Your task to perform on an android device: Open Android settings Image 0: 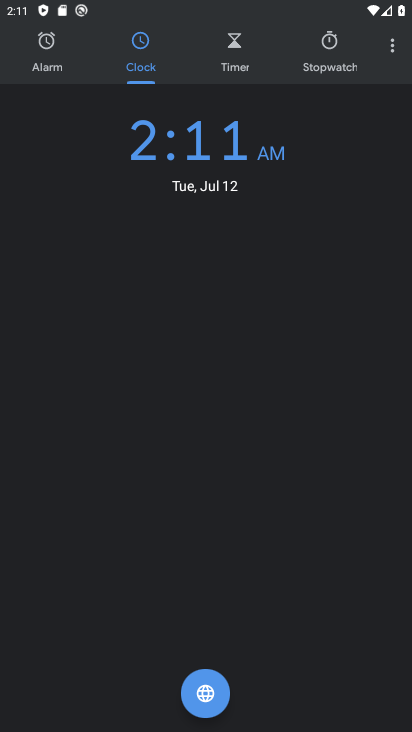
Step 0: press home button
Your task to perform on an android device: Open Android settings Image 1: 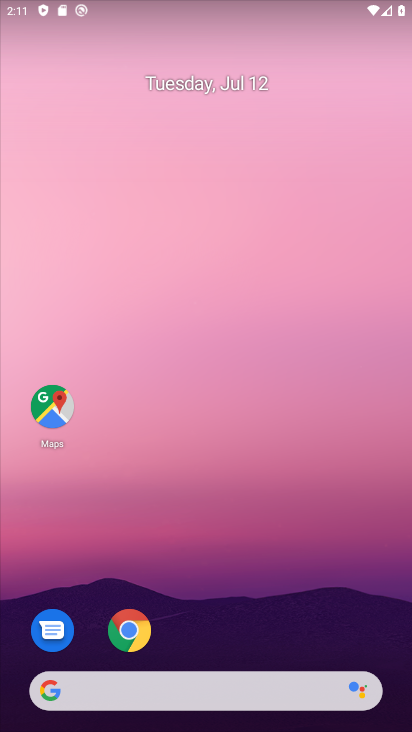
Step 1: drag from (357, 616) to (325, 91)
Your task to perform on an android device: Open Android settings Image 2: 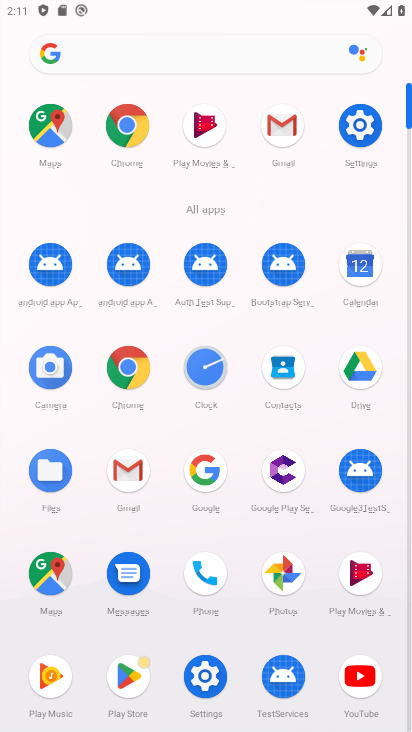
Step 2: click (202, 677)
Your task to perform on an android device: Open Android settings Image 3: 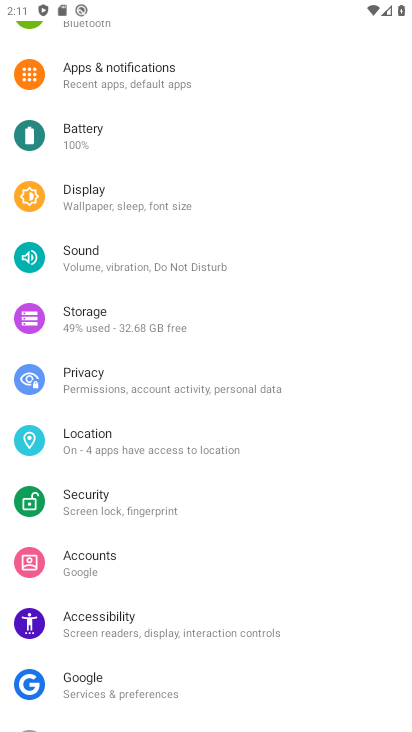
Step 3: drag from (268, 658) to (300, 312)
Your task to perform on an android device: Open Android settings Image 4: 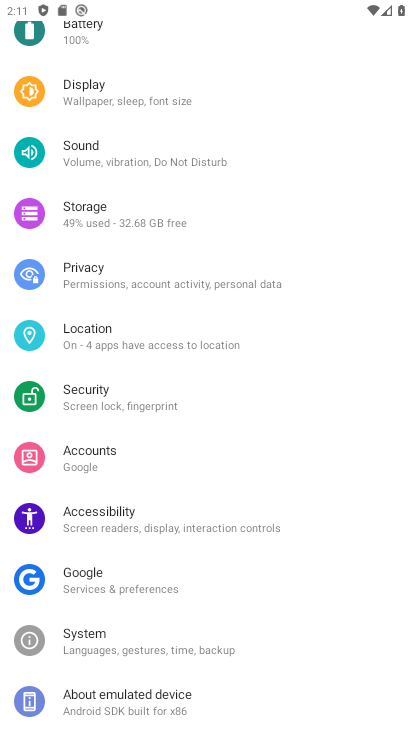
Step 4: click (103, 689)
Your task to perform on an android device: Open Android settings Image 5: 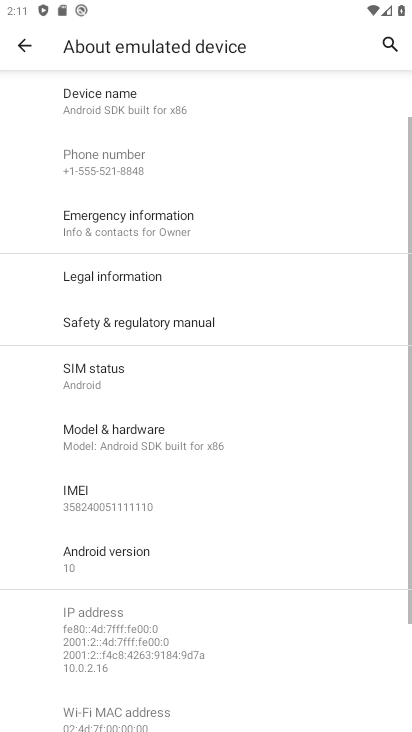
Step 5: task complete